Your task to perform on an android device: Open display settings Image 0: 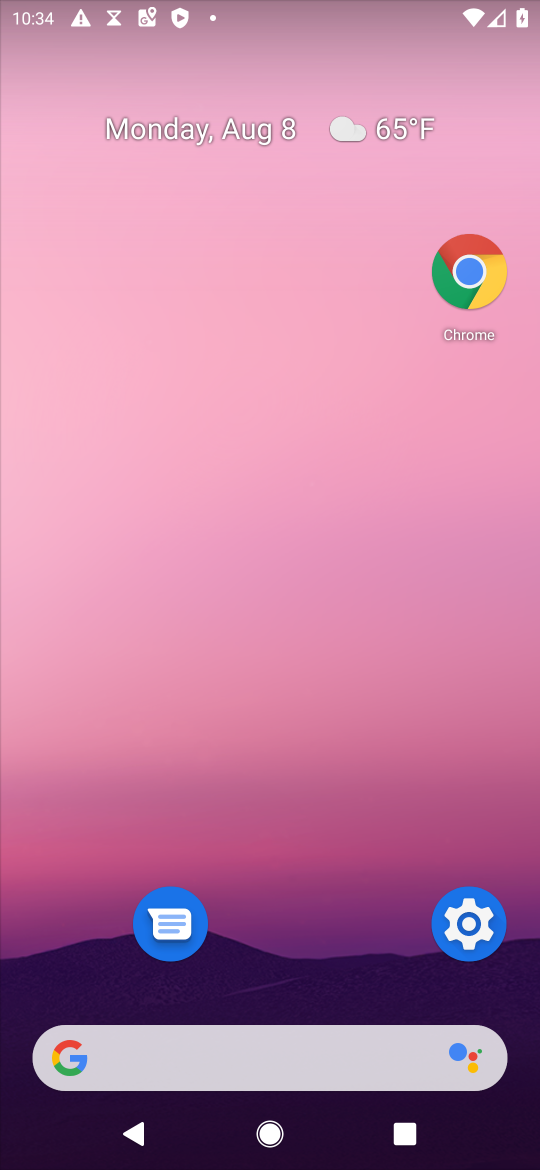
Step 0: drag from (369, 890) to (262, 7)
Your task to perform on an android device: Open display settings Image 1: 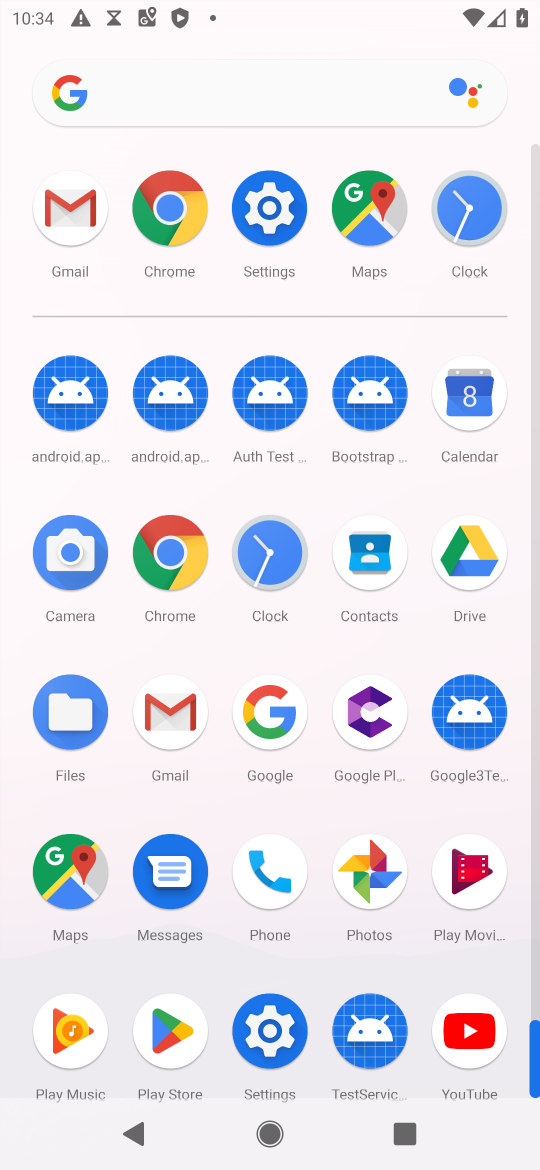
Step 1: click (284, 1050)
Your task to perform on an android device: Open display settings Image 2: 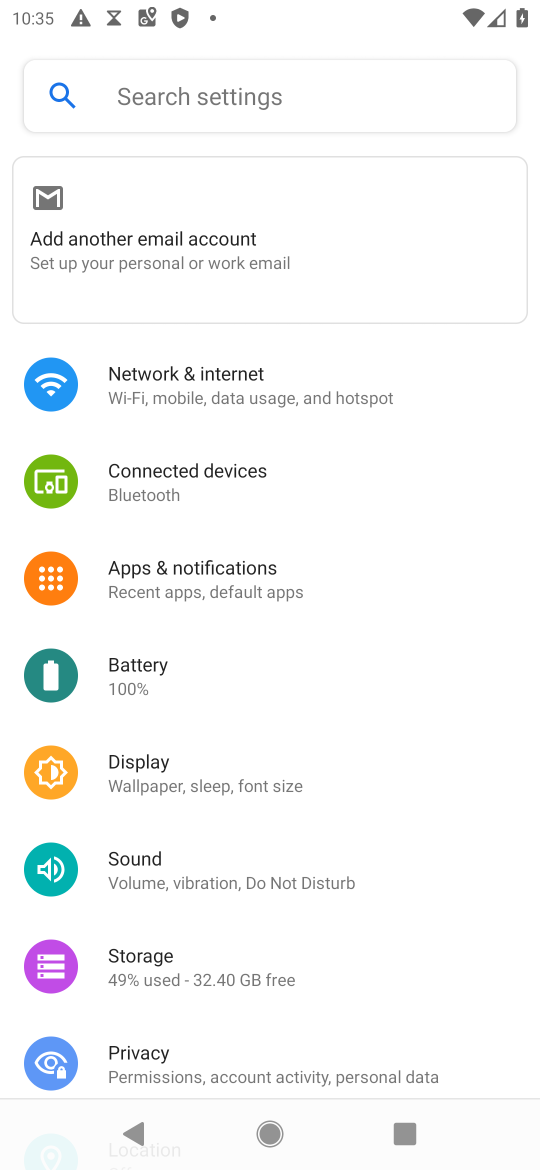
Step 2: click (107, 780)
Your task to perform on an android device: Open display settings Image 3: 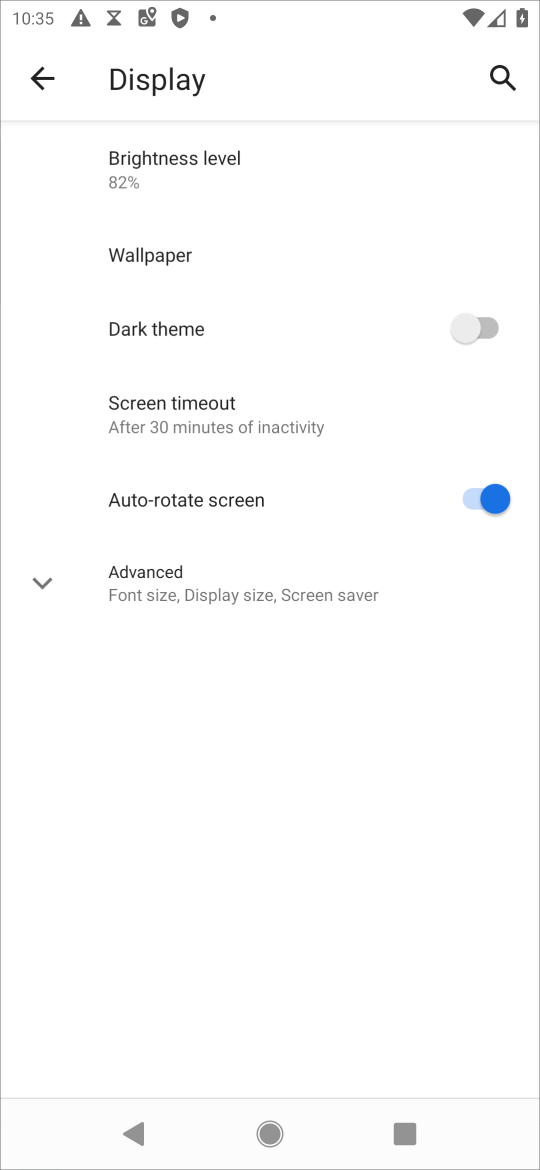
Step 3: task complete